Your task to perform on an android device: Do I have any events today? Image 0: 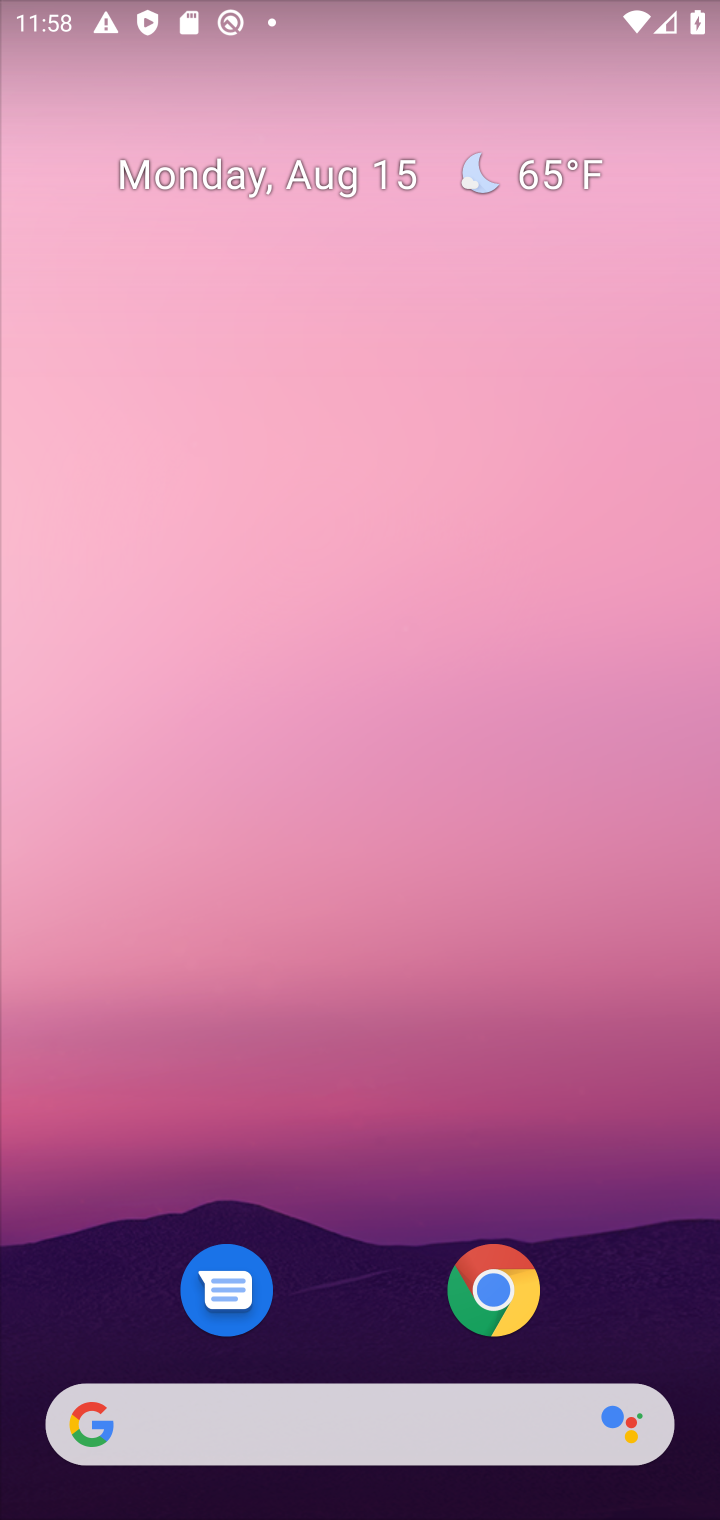
Step 0: drag from (51, 983) to (268, 260)
Your task to perform on an android device: Do I have any events today? Image 1: 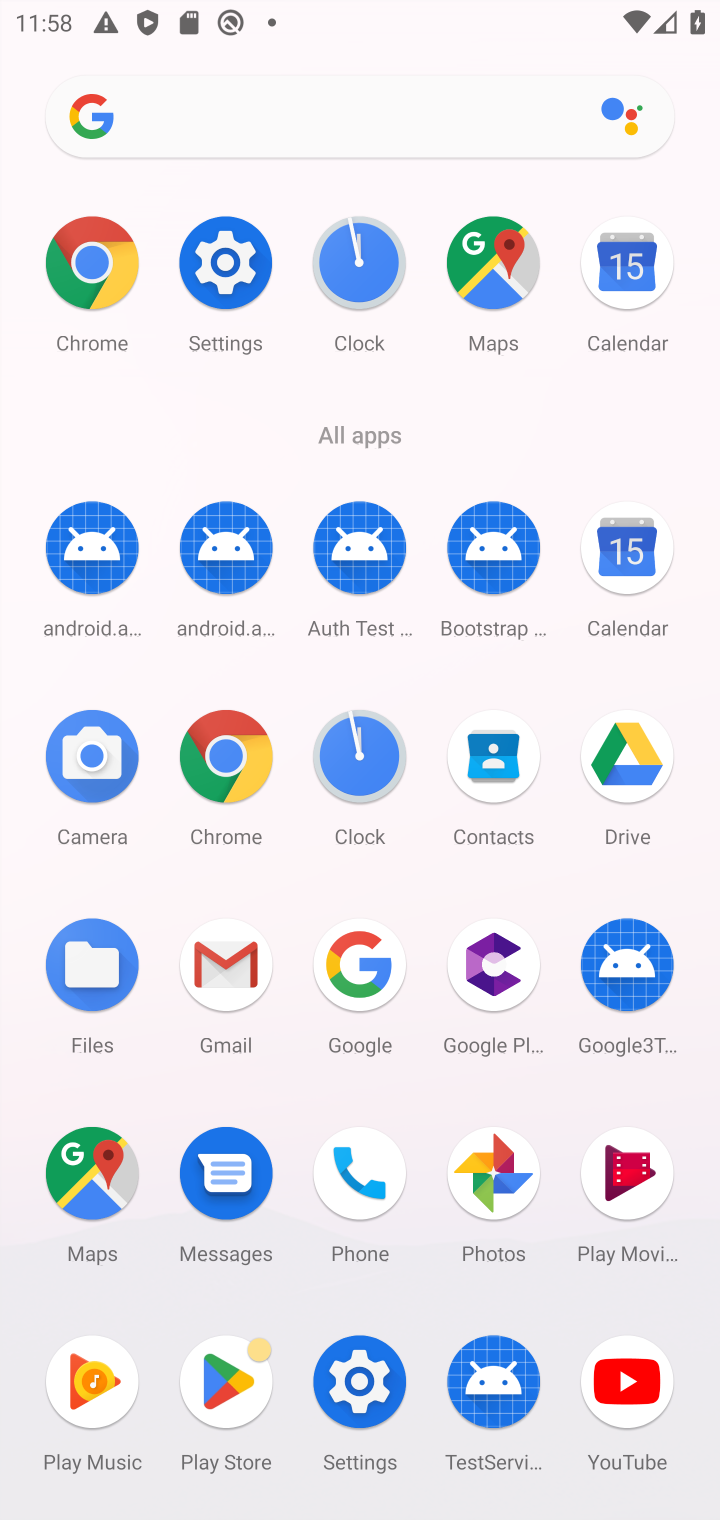
Step 1: click (657, 287)
Your task to perform on an android device: Do I have any events today? Image 2: 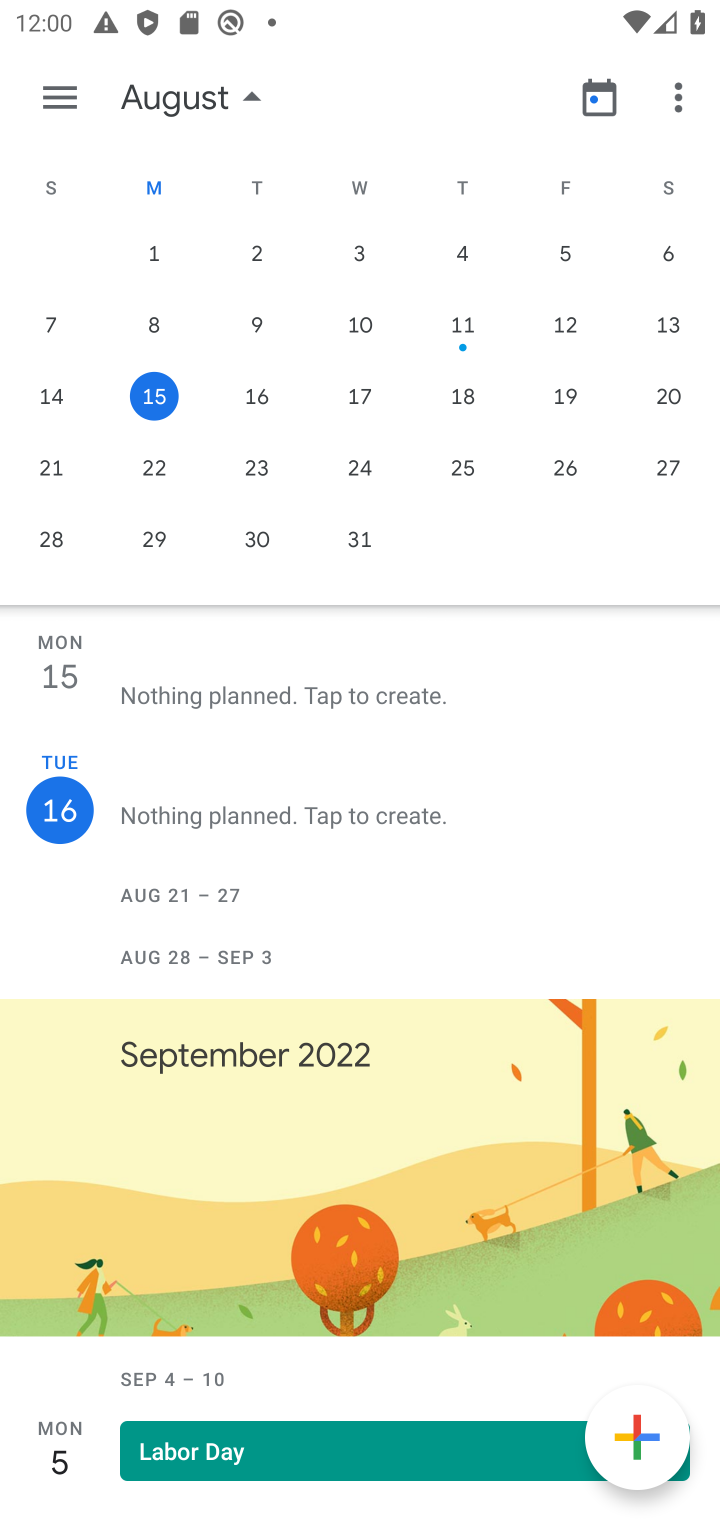
Step 2: task complete